Your task to perform on an android device: Is it going to rain today? Image 0: 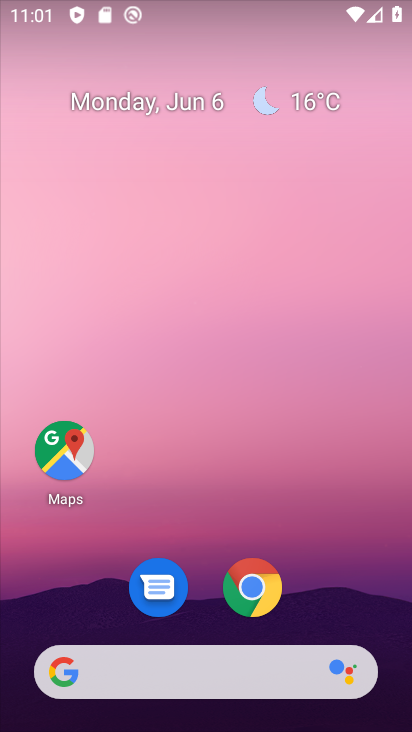
Step 0: drag from (308, 563) to (241, 23)
Your task to perform on an android device: Is it going to rain today? Image 1: 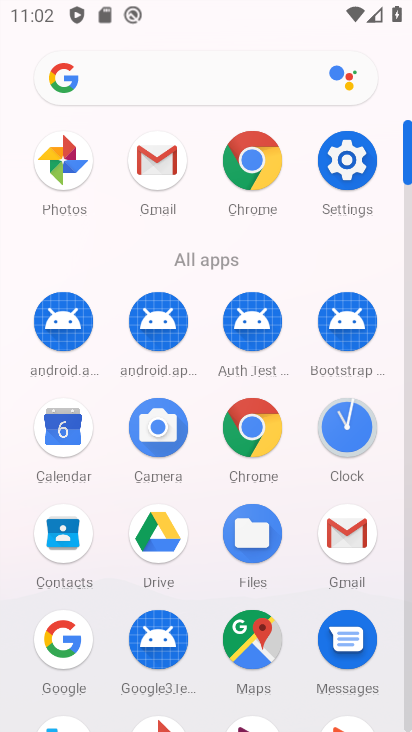
Step 1: click (252, 423)
Your task to perform on an android device: Is it going to rain today? Image 2: 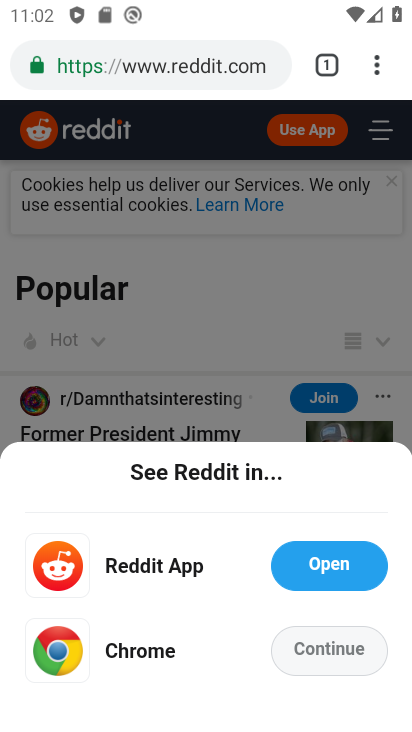
Step 2: click (185, 63)
Your task to perform on an android device: Is it going to rain today? Image 3: 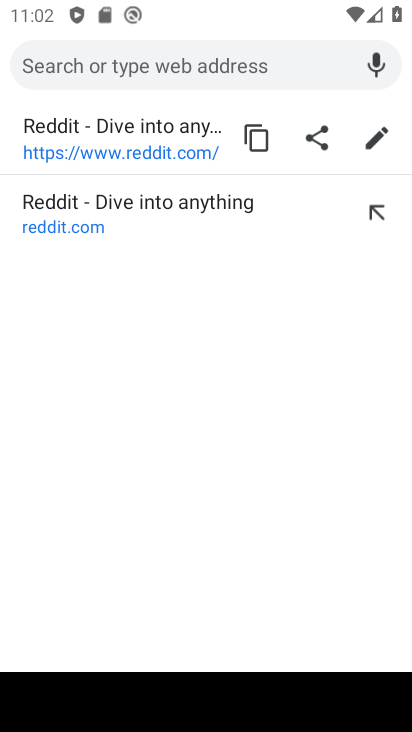
Step 3: type "Is it going to rain today?"
Your task to perform on an android device: Is it going to rain today? Image 4: 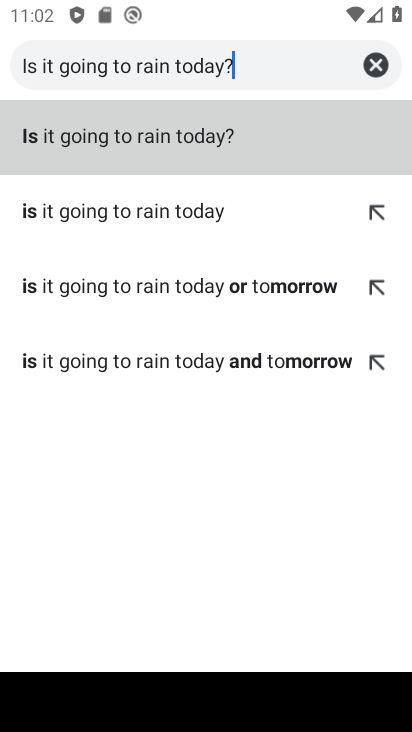
Step 4: type ""
Your task to perform on an android device: Is it going to rain today? Image 5: 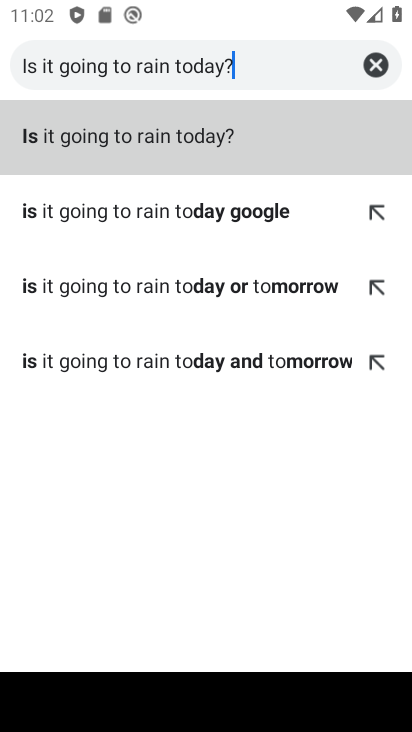
Step 5: click (165, 145)
Your task to perform on an android device: Is it going to rain today? Image 6: 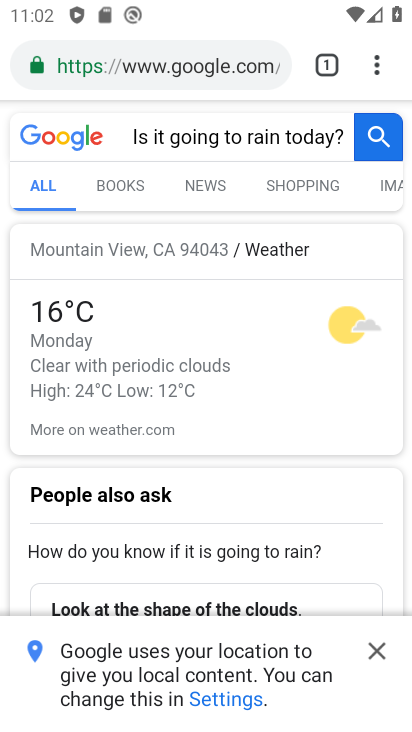
Step 6: task complete